Your task to perform on an android device: Open sound settings Image 0: 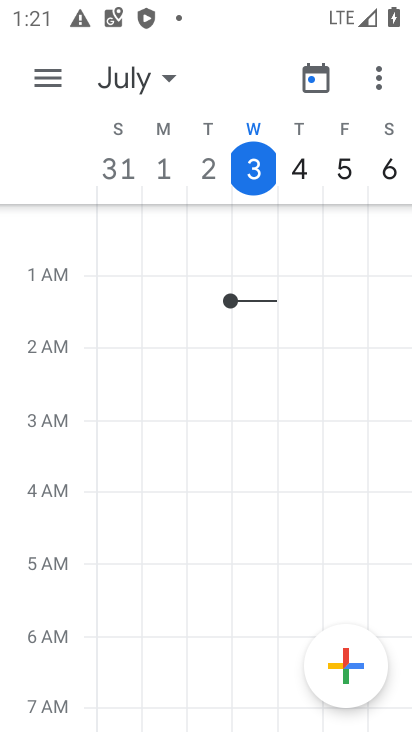
Step 0: press home button
Your task to perform on an android device: Open sound settings Image 1: 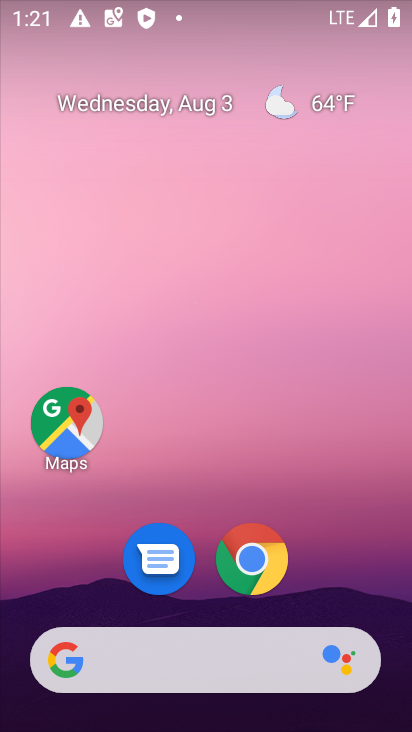
Step 1: drag from (207, 610) to (230, 40)
Your task to perform on an android device: Open sound settings Image 2: 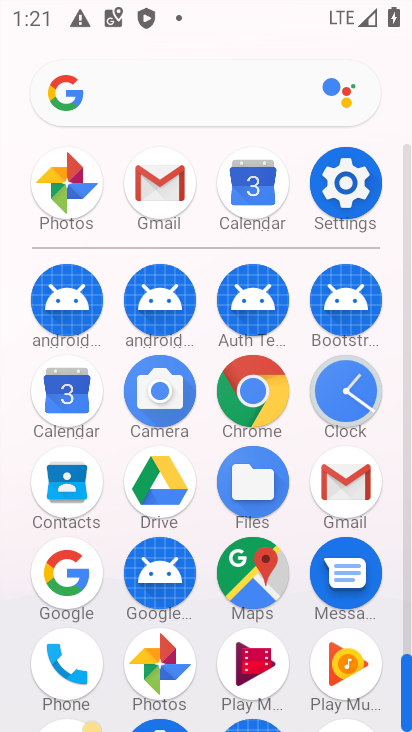
Step 2: click (354, 187)
Your task to perform on an android device: Open sound settings Image 3: 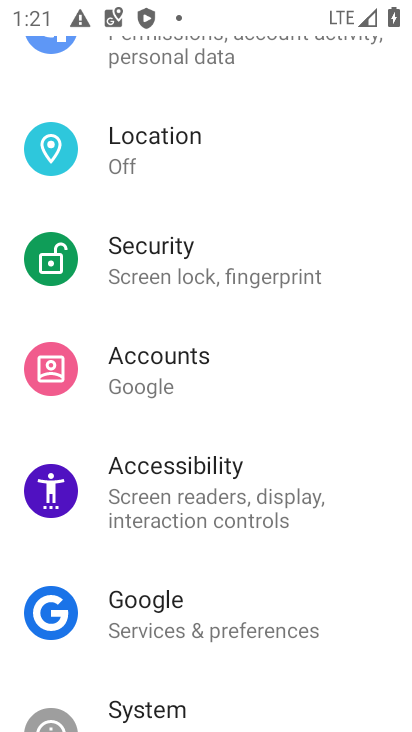
Step 3: drag from (209, 279) to (203, 528)
Your task to perform on an android device: Open sound settings Image 4: 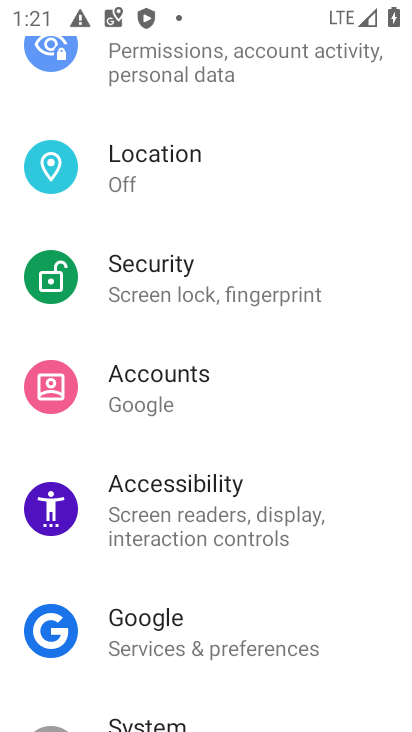
Step 4: drag from (165, 118) to (152, 636)
Your task to perform on an android device: Open sound settings Image 5: 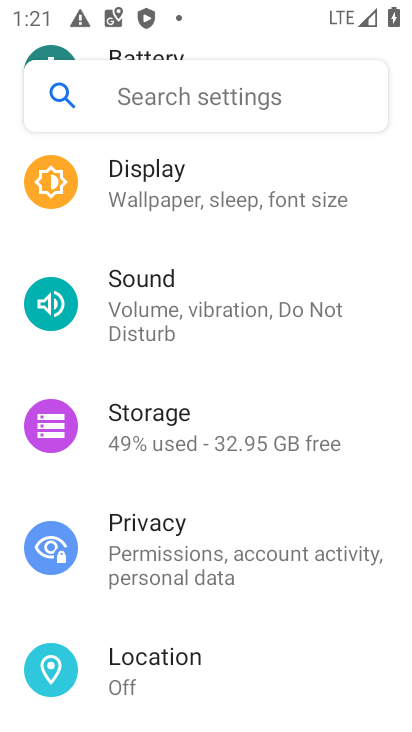
Step 5: click (145, 304)
Your task to perform on an android device: Open sound settings Image 6: 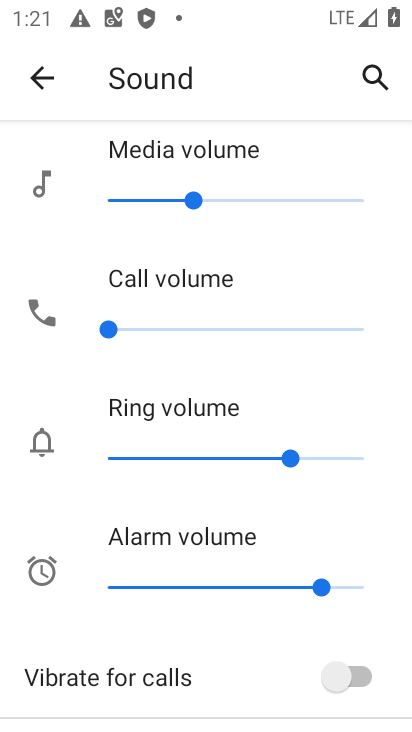
Step 6: task complete